Your task to perform on an android device: Do I have any events this weekend? Image 0: 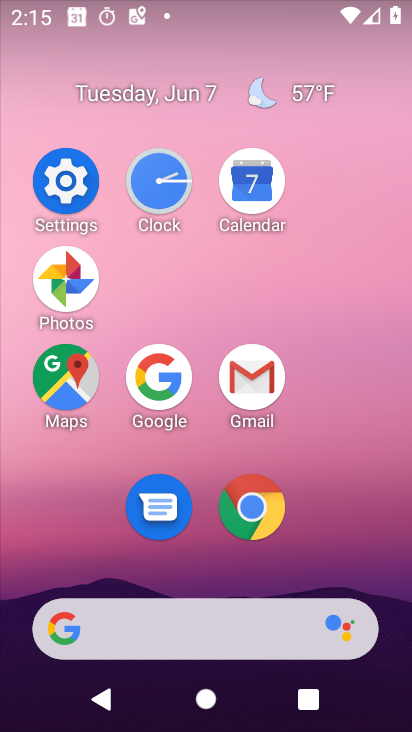
Step 0: click (81, 198)
Your task to perform on an android device: Do I have any events this weekend? Image 1: 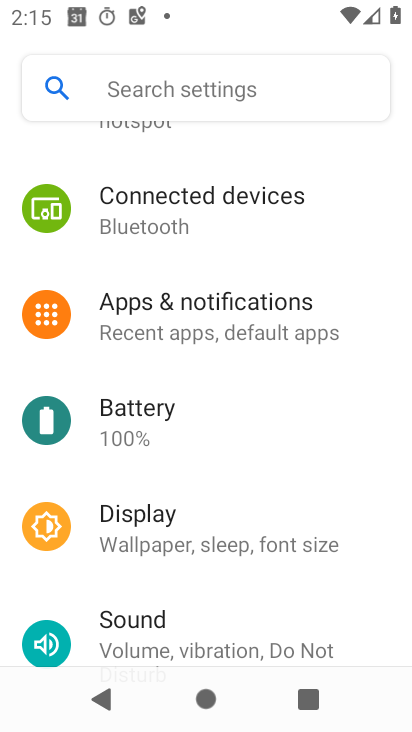
Step 1: drag from (303, 208) to (264, 581)
Your task to perform on an android device: Do I have any events this weekend? Image 2: 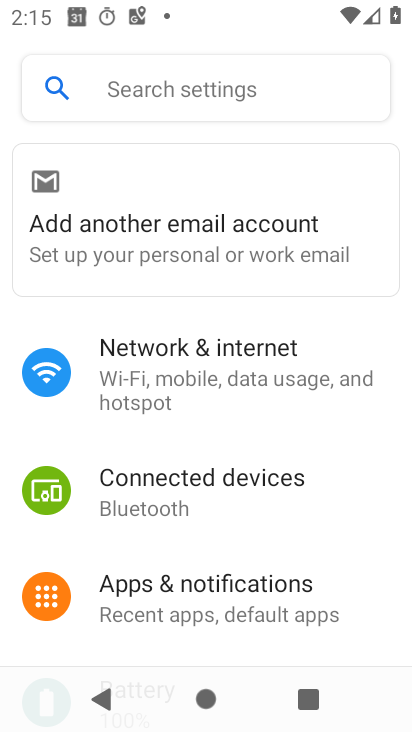
Step 2: click (259, 360)
Your task to perform on an android device: Do I have any events this weekend? Image 3: 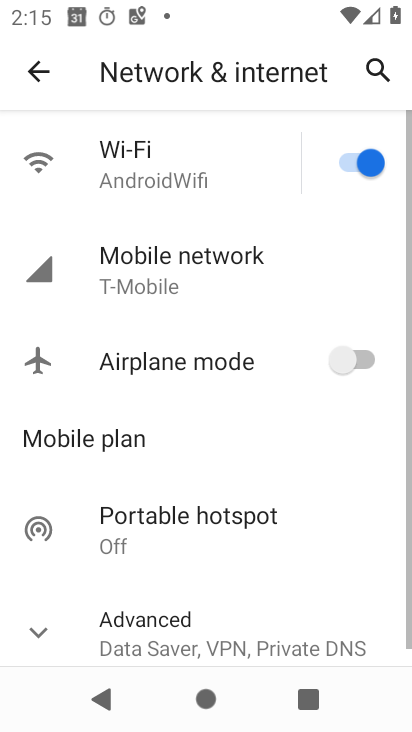
Step 3: click (258, 272)
Your task to perform on an android device: Do I have any events this weekend? Image 4: 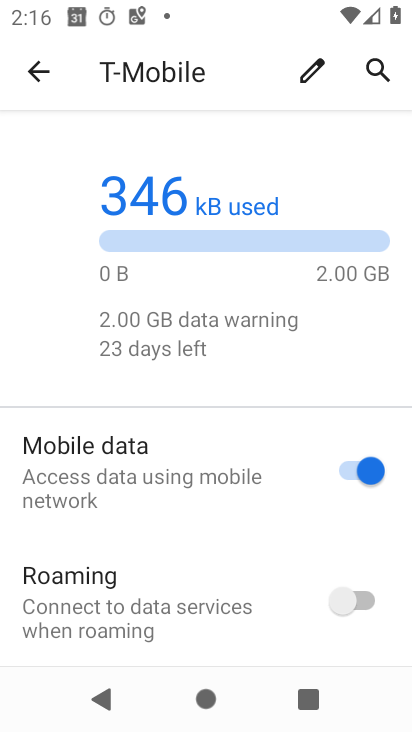
Step 4: task complete